Your task to perform on an android device: Clear all items from cart on newegg. Image 0: 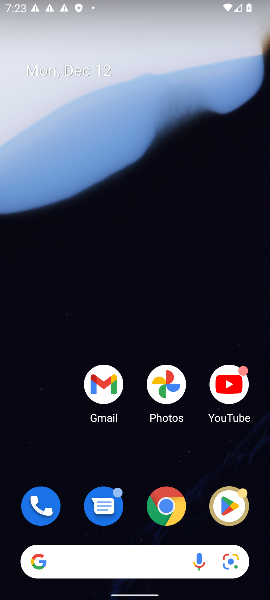
Step 0: click (123, 560)
Your task to perform on an android device: Clear all items from cart on newegg. Image 1: 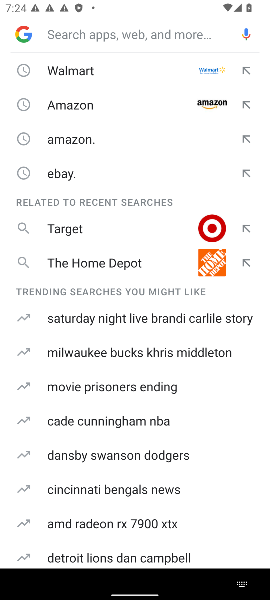
Step 1: type "newee\"
Your task to perform on an android device: Clear all items from cart on newegg. Image 2: 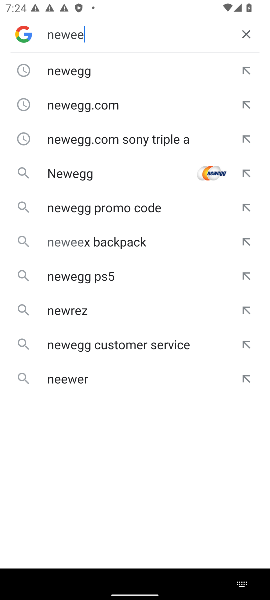
Step 2: type "newegg"
Your task to perform on an android device: Clear all items from cart on newegg. Image 3: 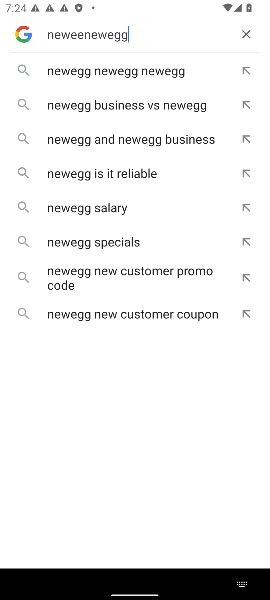
Step 3: click (157, 305)
Your task to perform on an android device: Clear all items from cart on newegg. Image 4: 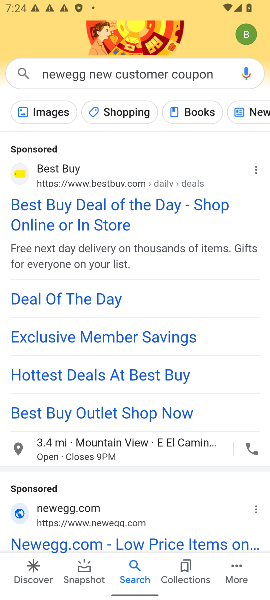
Step 4: click (105, 516)
Your task to perform on an android device: Clear all items from cart on newegg. Image 5: 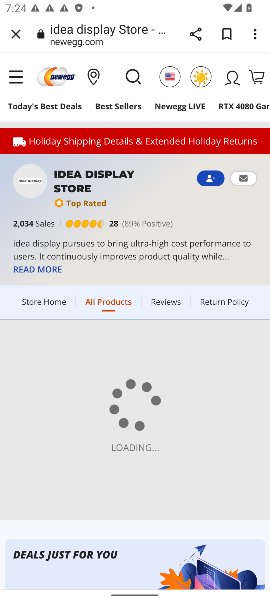
Step 5: click (249, 79)
Your task to perform on an android device: Clear all items from cart on newegg. Image 6: 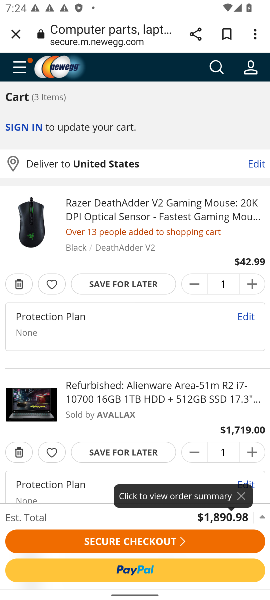
Step 6: click (22, 280)
Your task to perform on an android device: Clear all items from cart on newegg. Image 7: 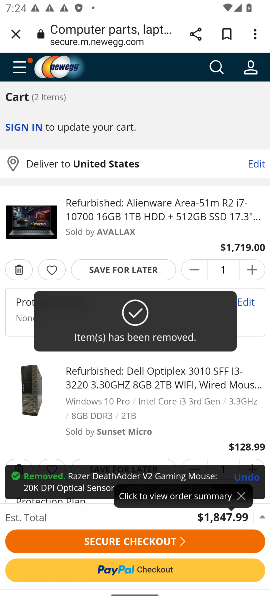
Step 7: click (22, 280)
Your task to perform on an android device: Clear all items from cart on newegg. Image 8: 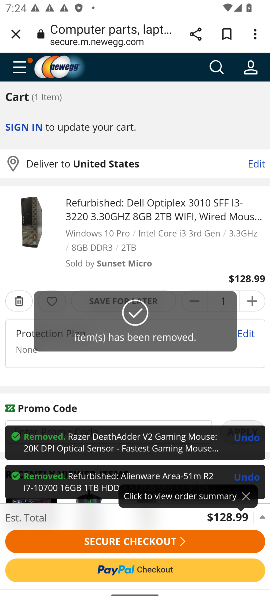
Step 8: click (22, 296)
Your task to perform on an android device: Clear all items from cart on newegg. Image 9: 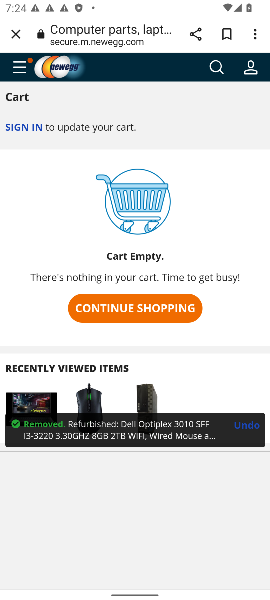
Step 9: task complete